Your task to perform on an android device: Open Reddit.com Image 0: 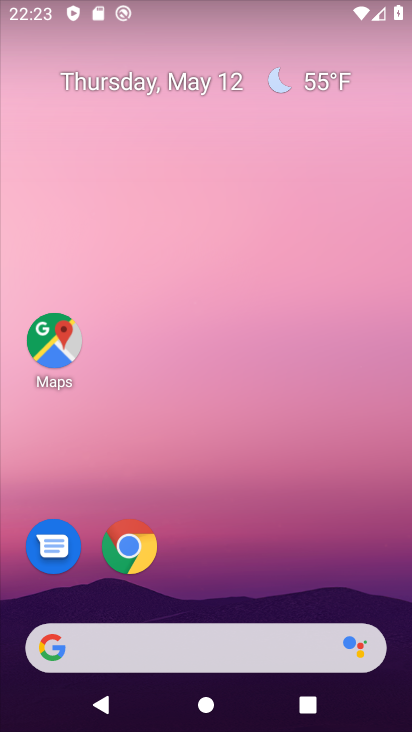
Step 0: click (129, 546)
Your task to perform on an android device: Open Reddit.com Image 1: 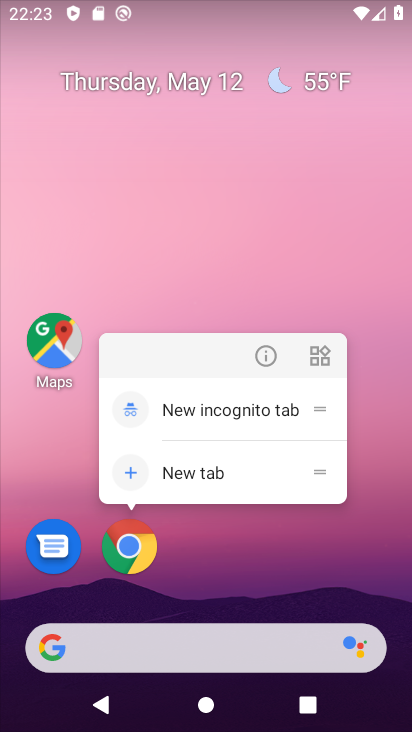
Step 1: click (124, 544)
Your task to perform on an android device: Open Reddit.com Image 2: 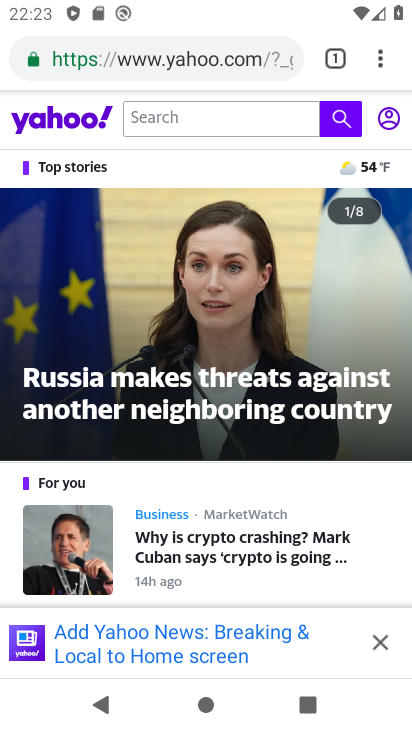
Step 2: click (144, 48)
Your task to perform on an android device: Open Reddit.com Image 3: 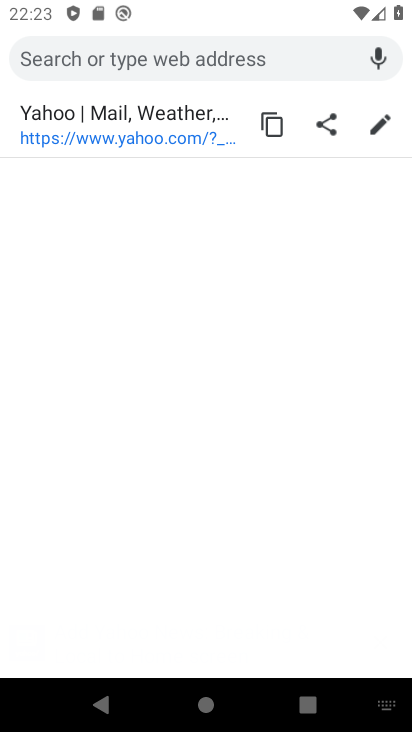
Step 3: type "Reddit.com"
Your task to perform on an android device: Open Reddit.com Image 4: 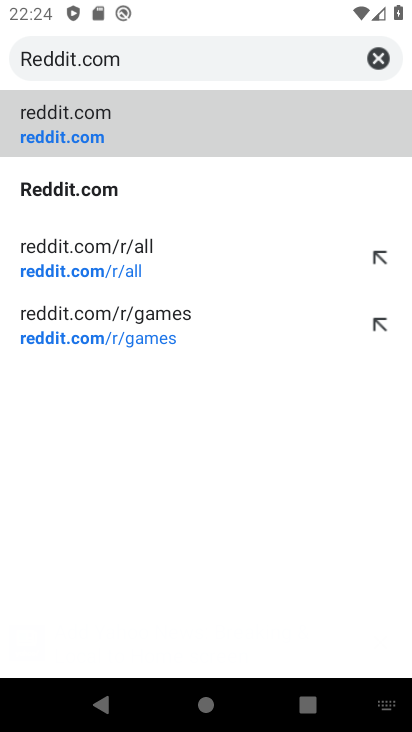
Step 4: click (223, 124)
Your task to perform on an android device: Open Reddit.com Image 5: 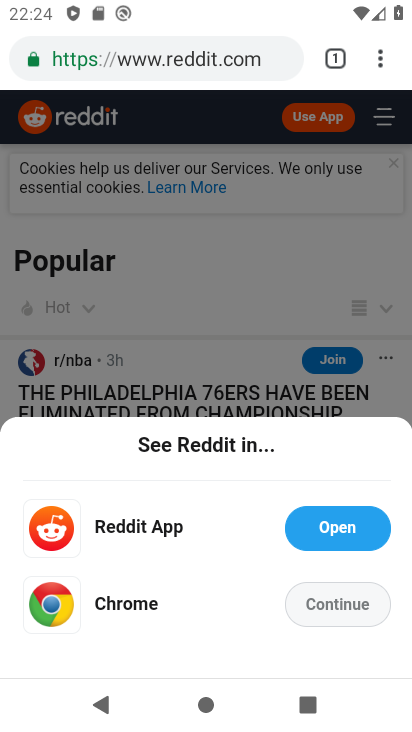
Step 5: click (329, 542)
Your task to perform on an android device: Open Reddit.com Image 6: 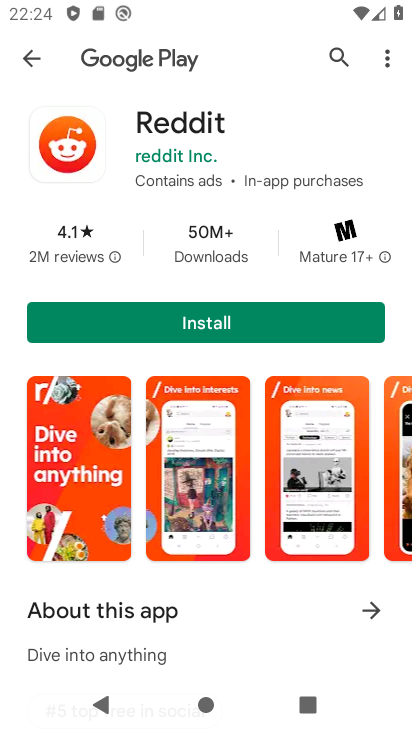
Step 6: task complete